Your task to perform on an android device: Go to eBay Image 0: 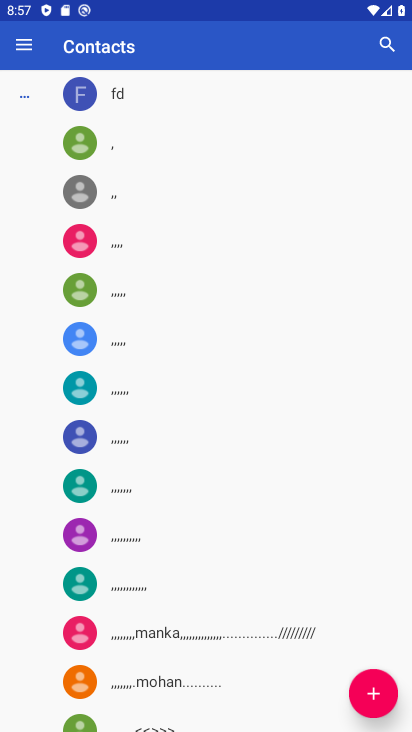
Step 0: press home button
Your task to perform on an android device: Go to eBay Image 1: 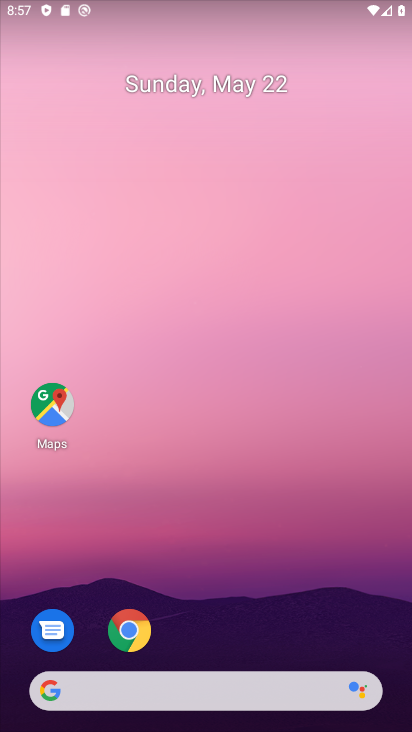
Step 1: click (130, 625)
Your task to perform on an android device: Go to eBay Image 2: 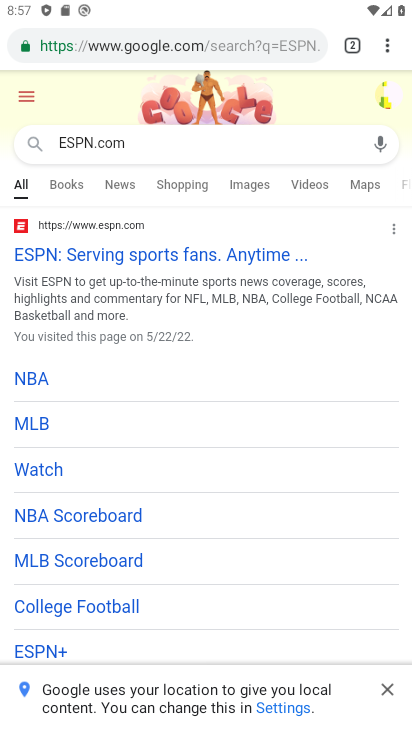
Step 2: click (315, 45)
Your task to perform on an android device: Go to eBay Image 3: 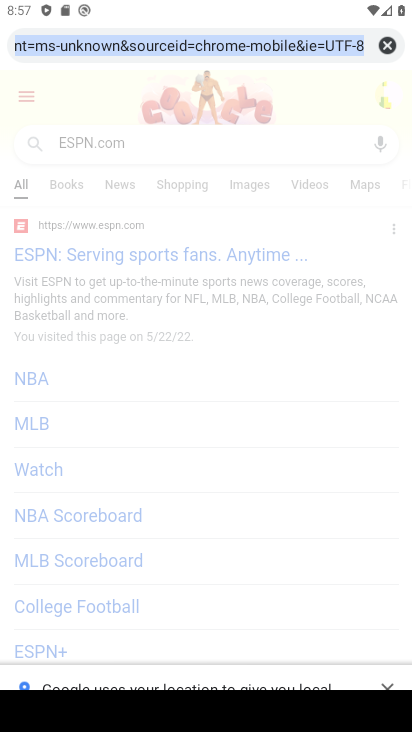
Step 3: click (385, 42)
Your task to perform on an android device: Go to eBay Image 4: 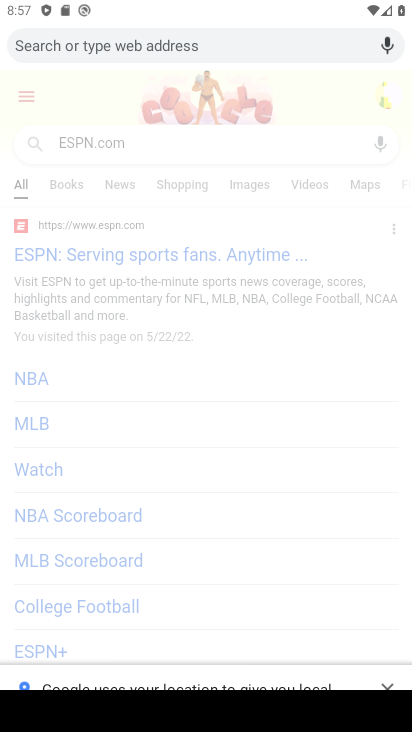
Step 4: type "eBay"
Your task to perform on an android device: Go to eBay Image 5: 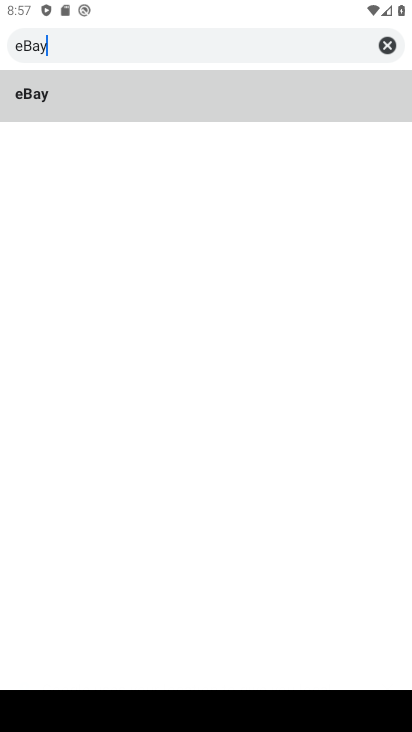
Step 5: click (137, 104)
Your task to perform on an android device: Go to eBay Image 6: 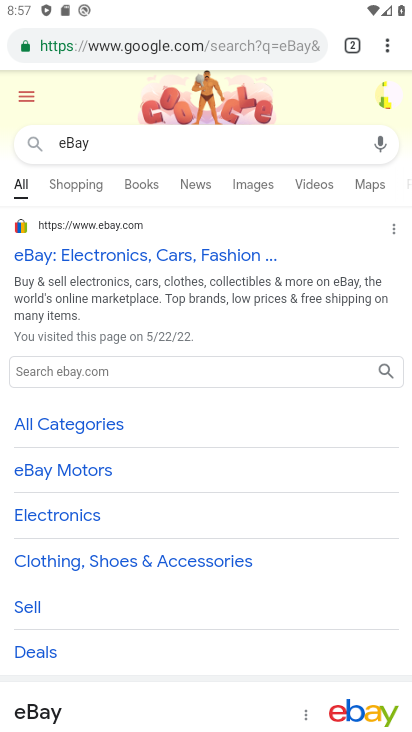
Step 6: task complete